Your task to perform on an android device: turn vacation reply on in the gmail app Image 0: 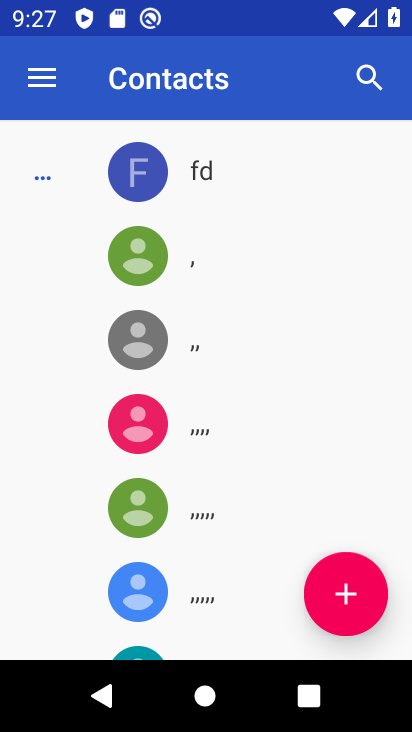
Step 0: press home button
Your task to perform on an android device: turn vacation reply on in the gmail app Image 1: 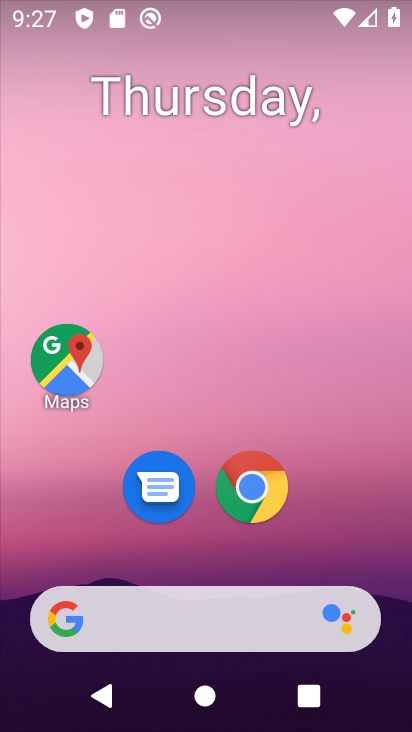
Step 1: drag from (302, 521) to (123, 183)
Your task to perform on an android device: turn vacation reply on in the gmail app Image 2: 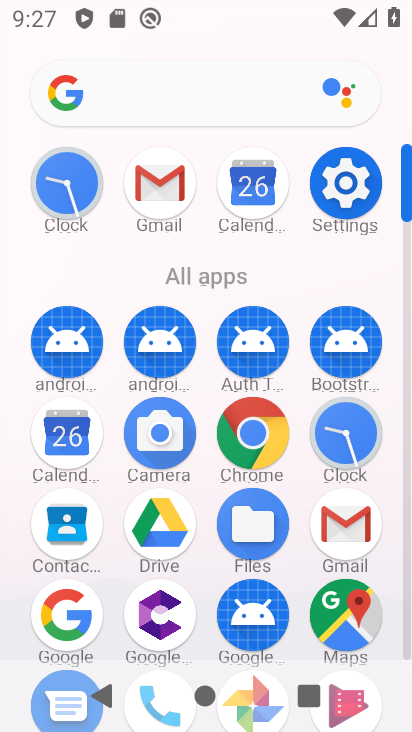
Step 2: click (148, 197)
Your task to perform on an android device: turn vacation reply on in the gmail app Image 3: 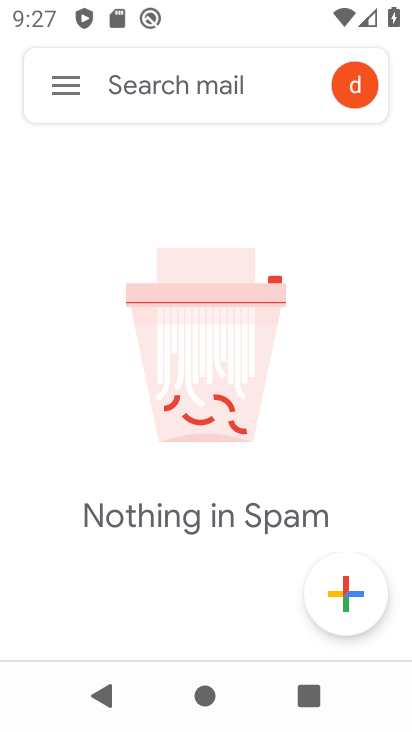
Step 3: click (48, 84)
Your task to perform on an android device: turn vacation reply on in the gmail app Image 4: 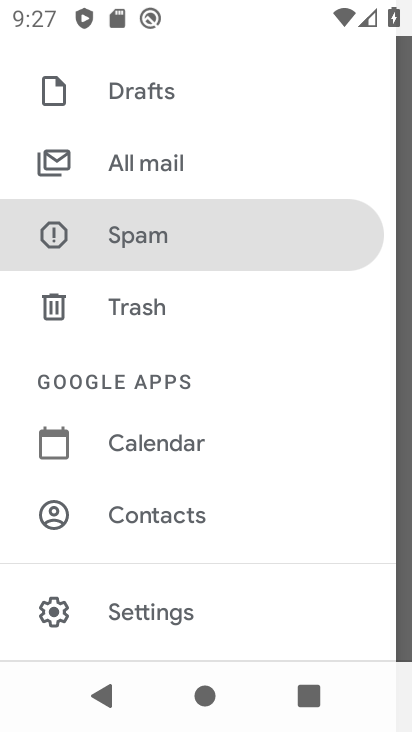
Step 4: click (122, 609)
Your task to perform on an android device: turn vacation reply on in the gmail app Image 5: 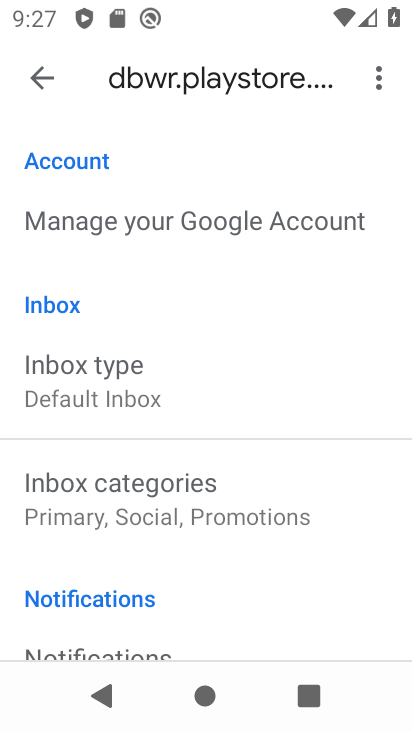
Step 5: drag from (230, 602) to (177, 171)
Your task to perform on an android device: turn vacation reply on in the gmail app Image 6: 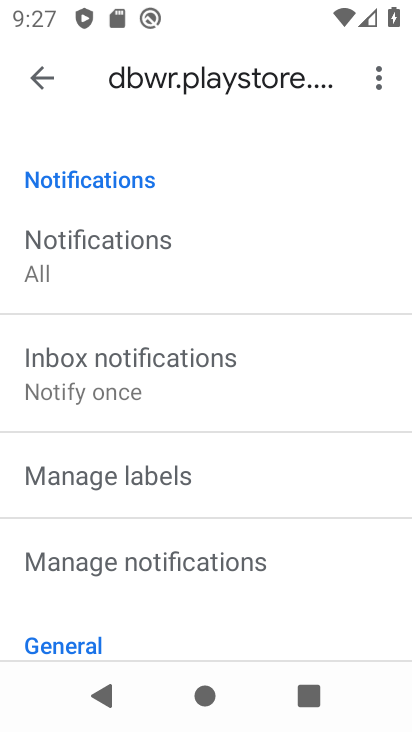
Step 6: drag from (255, 582) to (191, 172)
Your task to perform on an android device: turn vacation reply on in the gmail app Image 7: 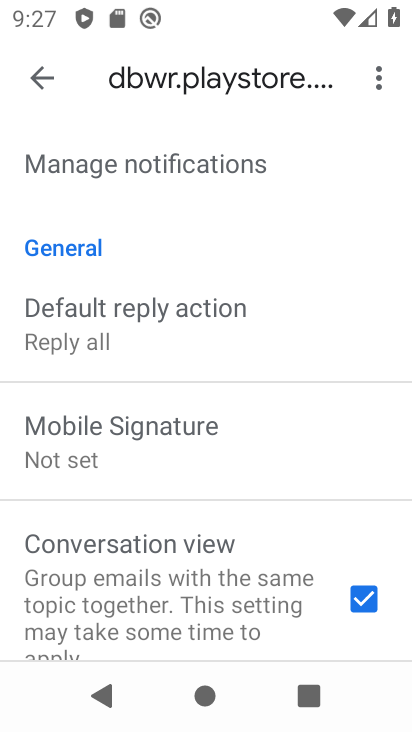
Step 7: drag from (203, 516) to (219, 126)
Your task to perform on an android device: turn vacation reply on in the gmail app Image 8: 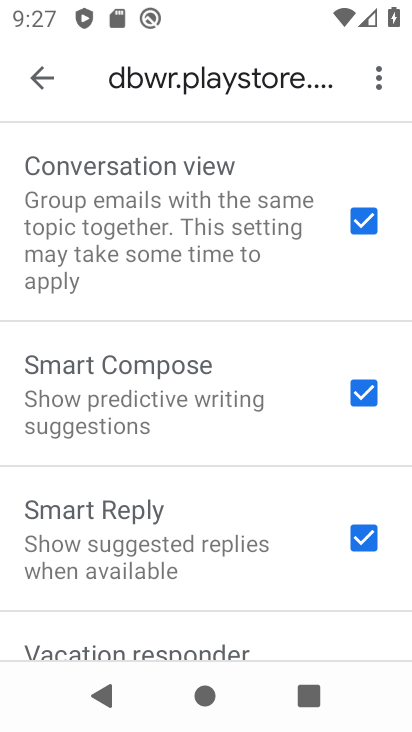
Step 8: click (133, 639)
Your task to perform on an android device: turn vacation reply on in the gmail app Image 9: 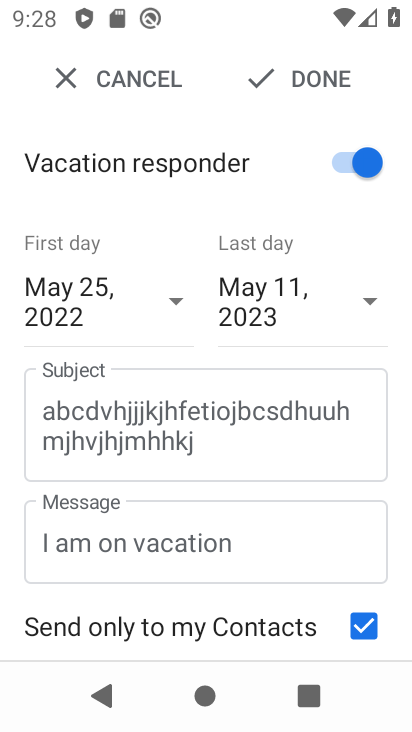
Step 9: task complete